Your task to perform on an android device: turn off location history Image 0: 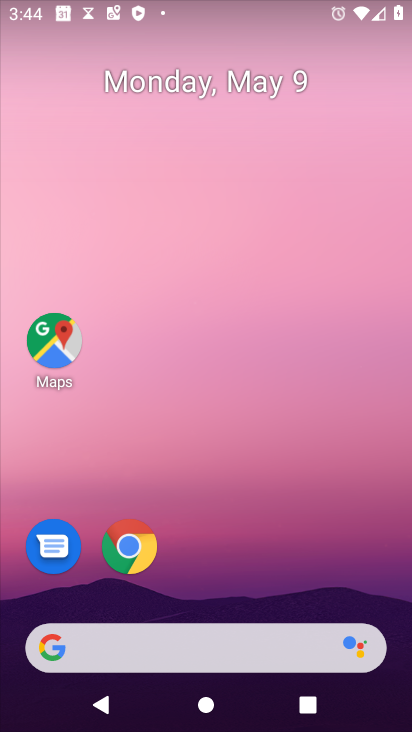
Step 0: drag from (313, 532) to (218, 86)
Your task to perform on an android device: turn off location history Image 1: 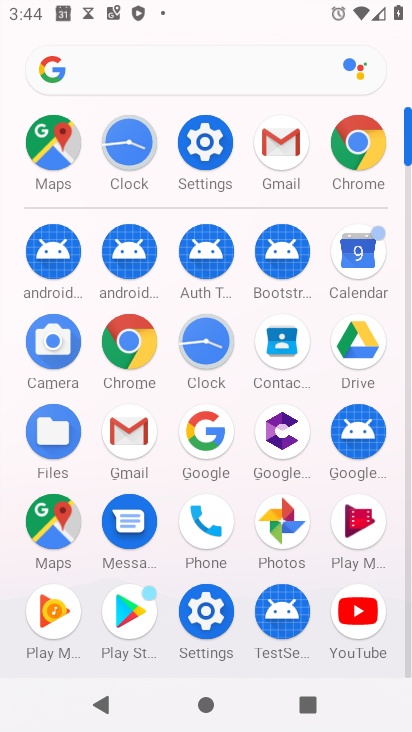
Step 1: click (220, 142)
Your task to perform on an android device: turn off location history Image 2: 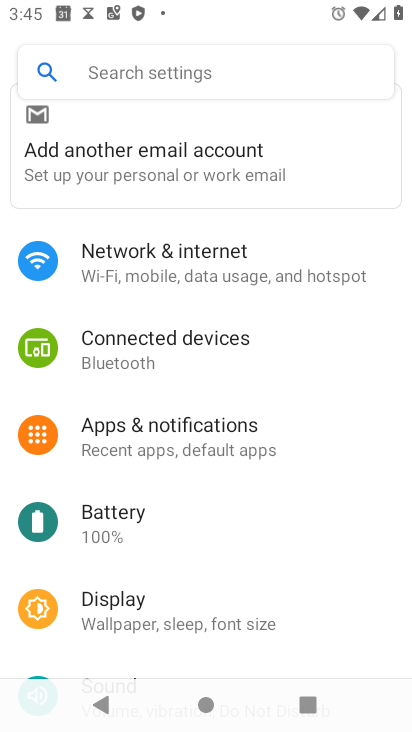
Step 2: drag from (176, 470) to (244, 195)
Your task to perform on an android device: turn off location history Image 3: 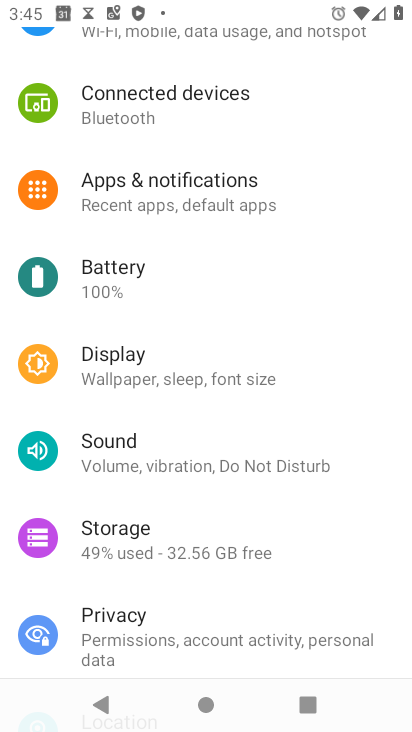
Step 3: drag from (259, 534) to (276, 255)
Your task to perform on an android device: turn off location history Image 4: 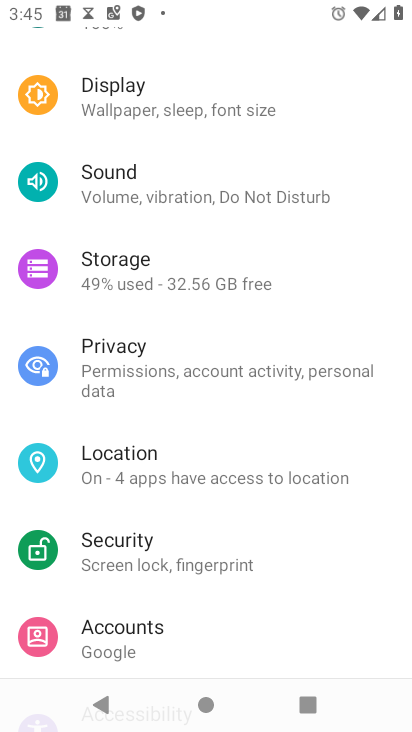
Step 4: click (142, 466)
Your task to perform on an android device: turn off location history Image 5: 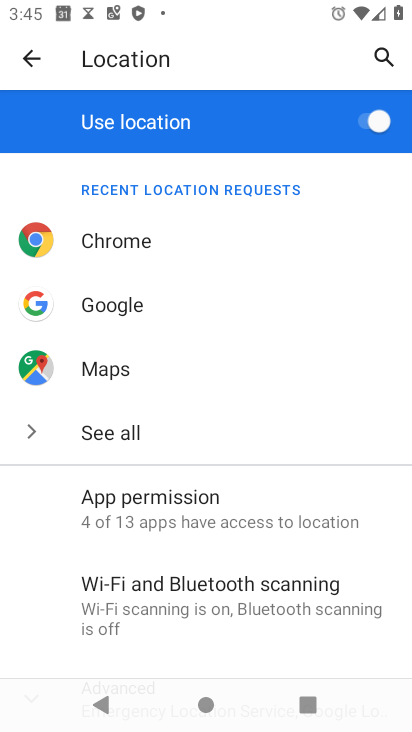
Step 5: click (380, 125)
Your task to perform on an android device: turn off location history Image 6: 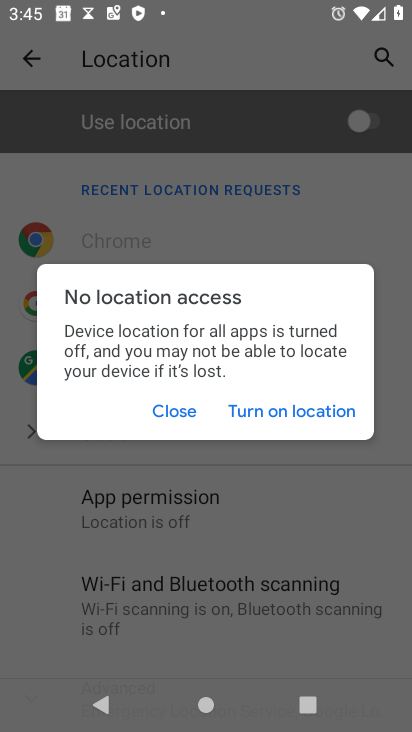
Step 6: task complete